Your task to perform on an android device: Go to Android settings Image 0: 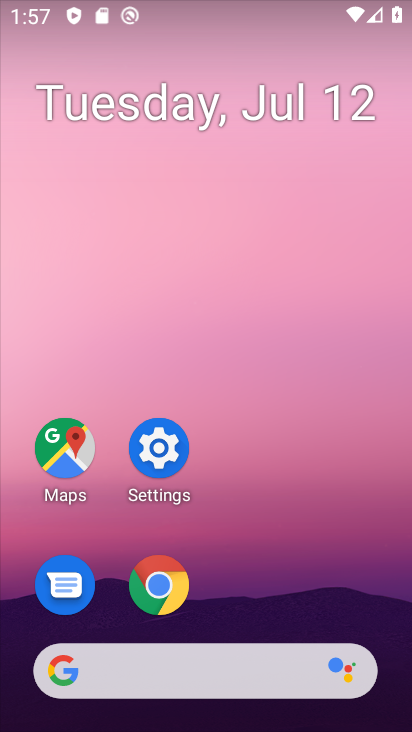
Step 0: click (148, 460)
Your task to perform on an android device: Go to Android settings Image 1: 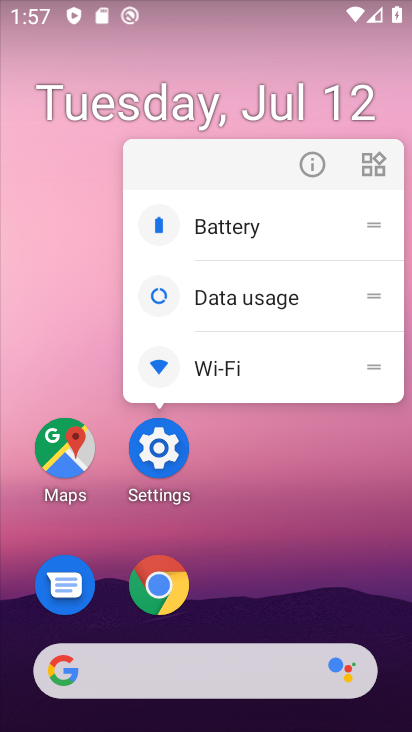
Step 1: click (159, 451)
Your task to perform on an android device: Go to Android settings Image 2: 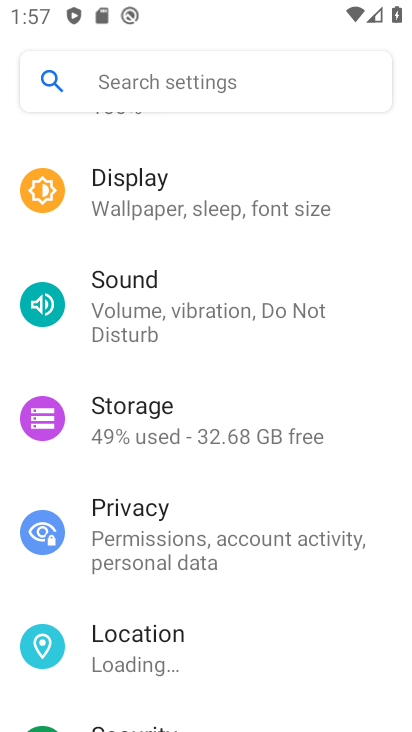
Step 2: task complete